Your task to perform on an android device: Is it going to rain today? Image 0: 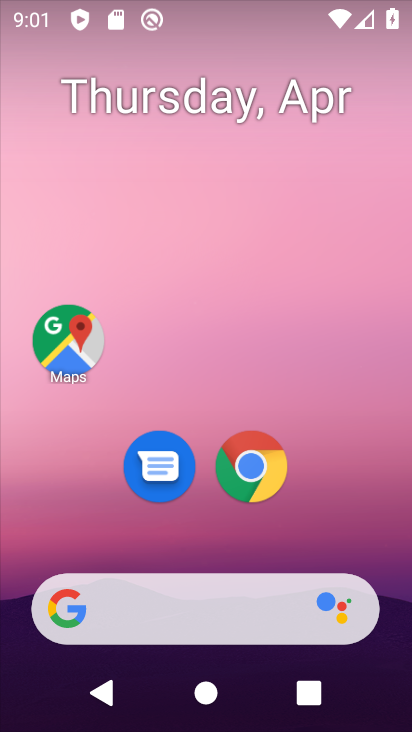
Step 0: click (142, 613)
Your task to perform on an android device: Is it going to rain today? Image 1: 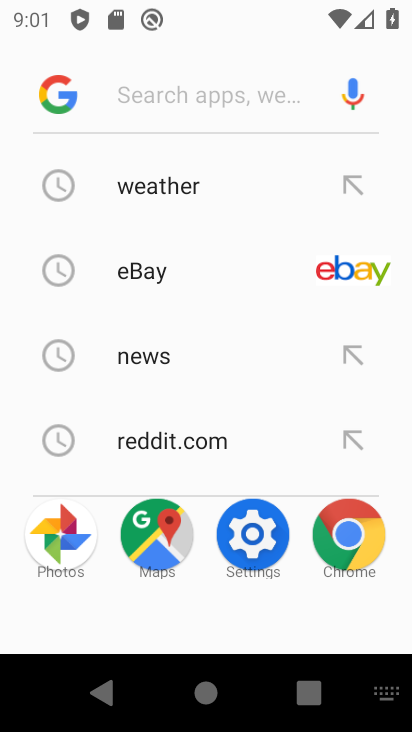
Step 1: click (186, 180)
Your task to perform on an android device: Is it going to rain today? Image 2: 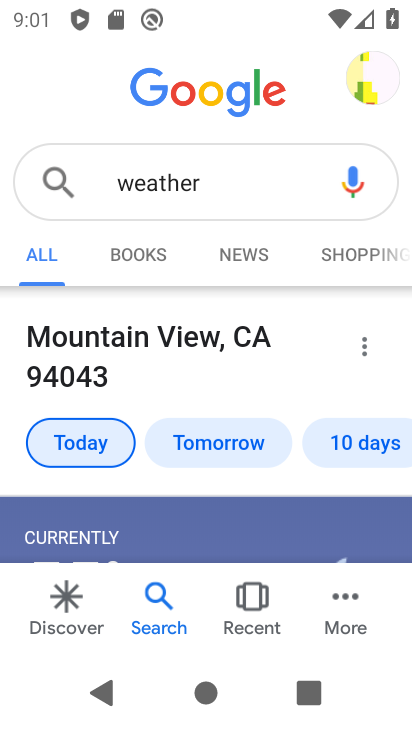
Step 2: task complete